Your task to perform on an android device: refresh tabs in the chrome app Image 0: 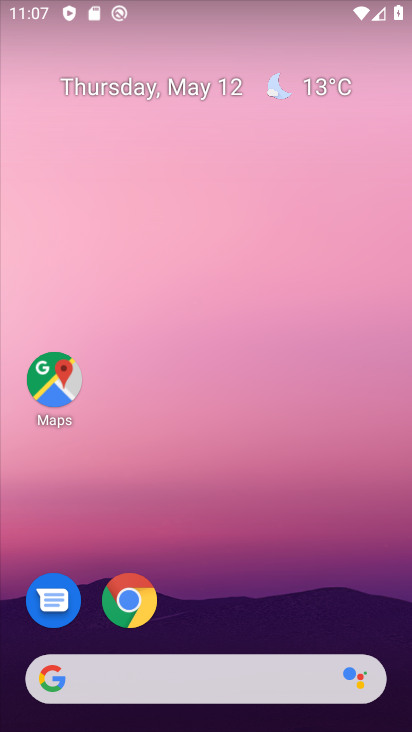
Step 0: click (131, 588)
Your task to perform on an android device: refresh tabs in the chrome app Image 1: 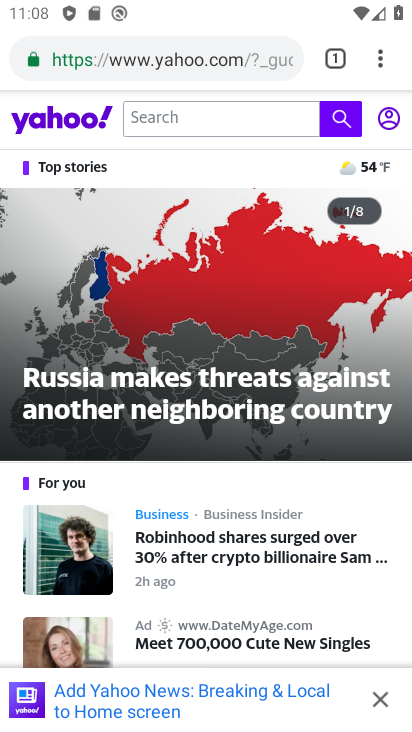
Step 1: click (379, 63)
Your task to perform on an android device: refresh tabs in the chrome app Image 2: 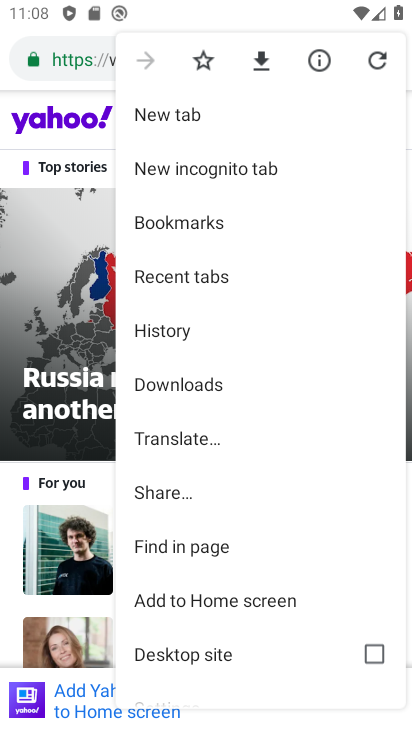
Step 2: click (376, 62)
Your task to perform on an android device: refresh tabs in the chrome app Image 3: 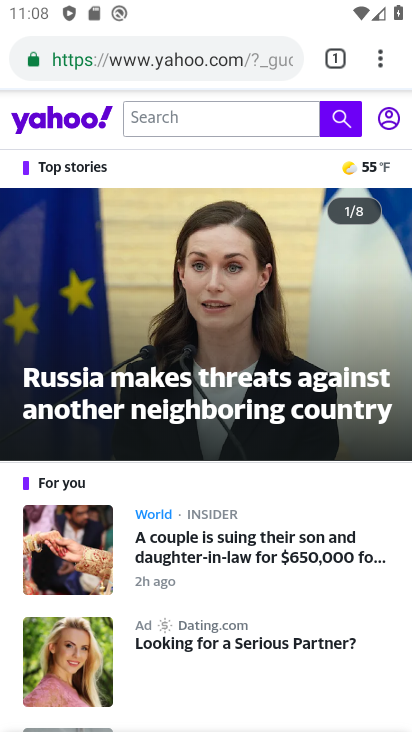
Step 3: task complete